Your task to perform on an android device: Open calendar and show me the fourth week of next month Image 0: 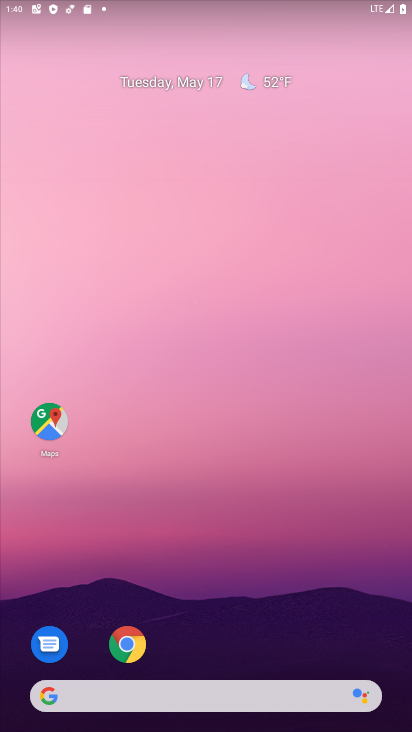
Step 0: drag from (198, 689) to (263, 186)
Your task to perform on an android device: Open calendar and show me the fourth week of next month Image 1: 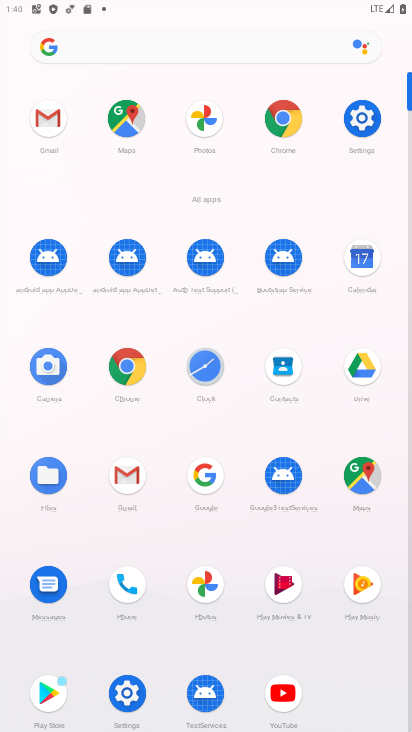
Step 1: click (367, 270)
Your task to perform on an android device: Open calendar and show me the fourth week of next month Image 2: 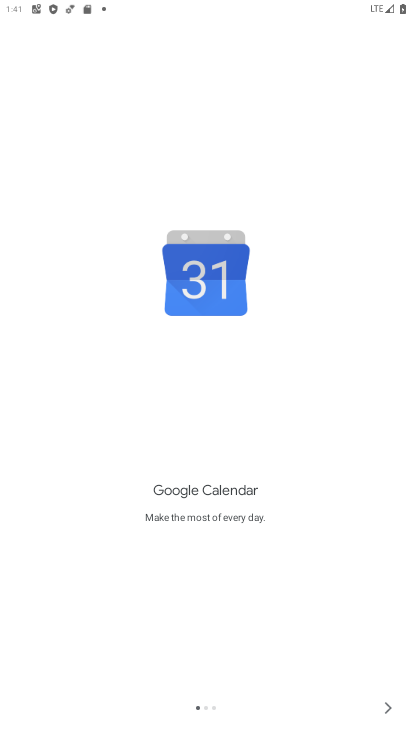
Step 2: click (378, 697)
Your task to perform on an android device: Open calendar and show me the fourth week of next month Image 3: 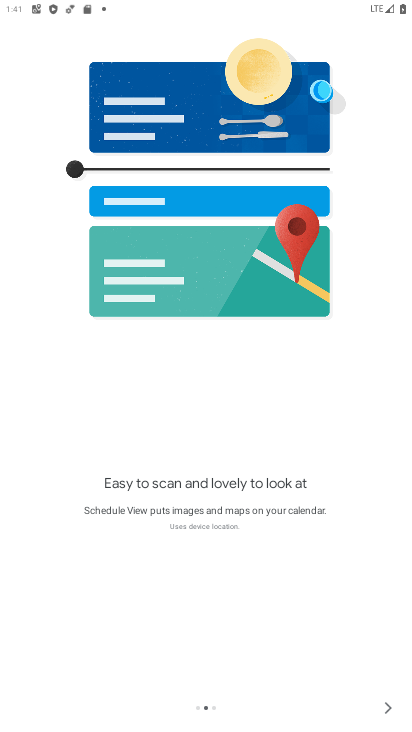
Step 3: click (378, 697)
Your task to perform on an android device: Open calendar and show me the fourth week of next month Image 4: 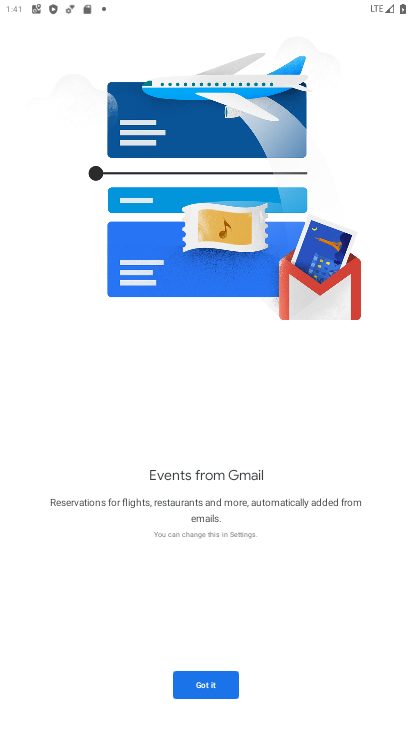
Step 4: click (202, 690)
Your task to perform on an android device: Open calendar and show me the fourth week of next month Image 5: 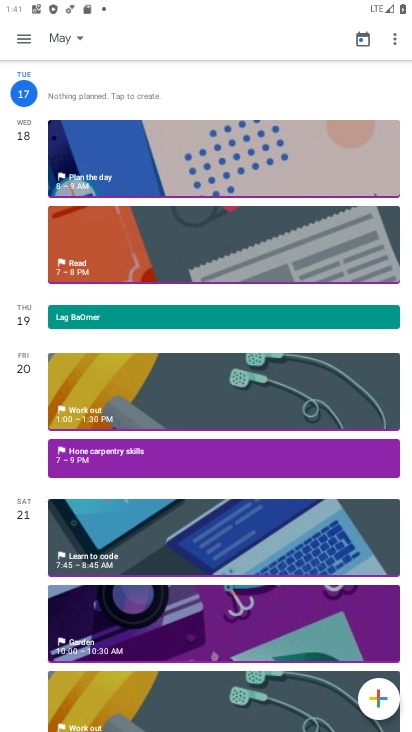
Step 5: click (18, 39)
Your task to perform on an android device: Open calendar and show me the fourth week of next month Image 6: 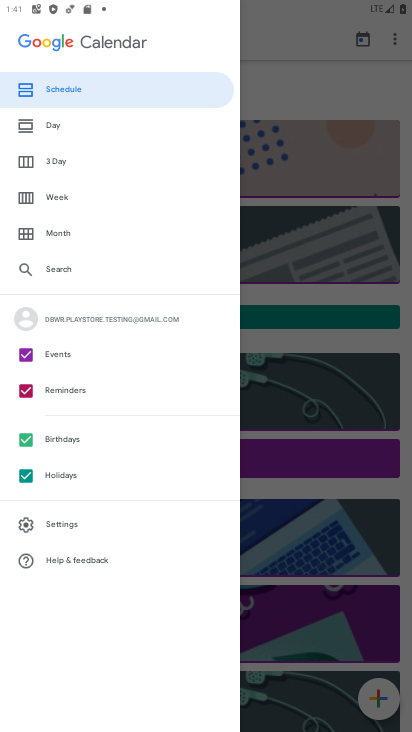
Step 6: click (77, 234)
Your task to perform on an android device: Open calendar and show me the fourth week of next month Image 7: 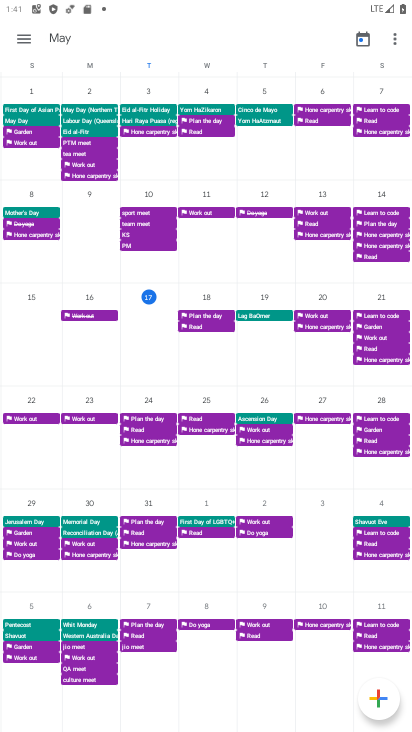
Step 7: task complete